Your task to perform on an android device: turn off airplane mode Image 0: 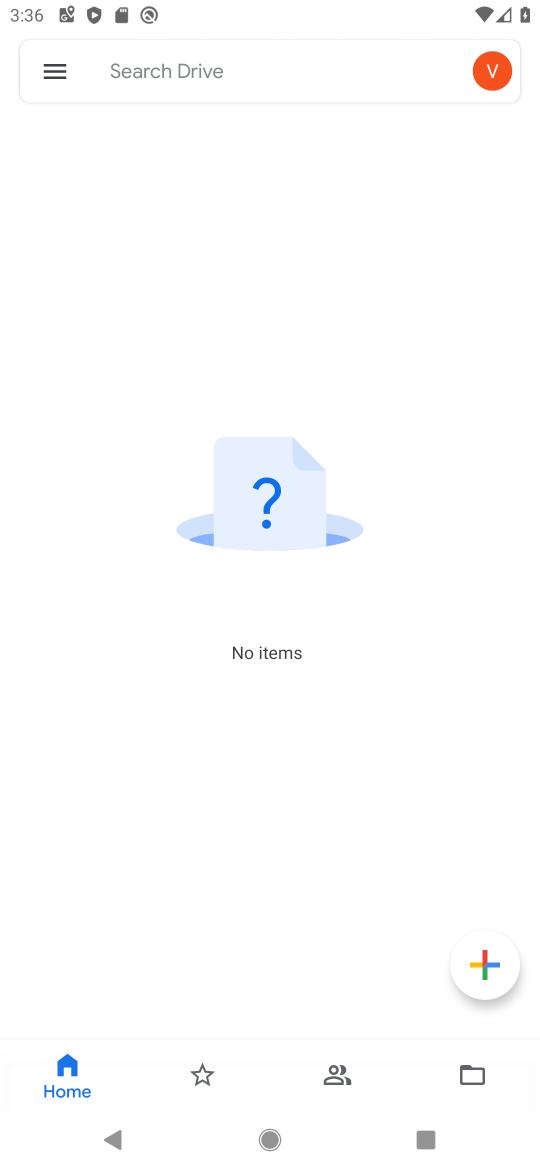
Step 0: task complete